Your task to perform on an android device: Open Google Chrome Image 0: 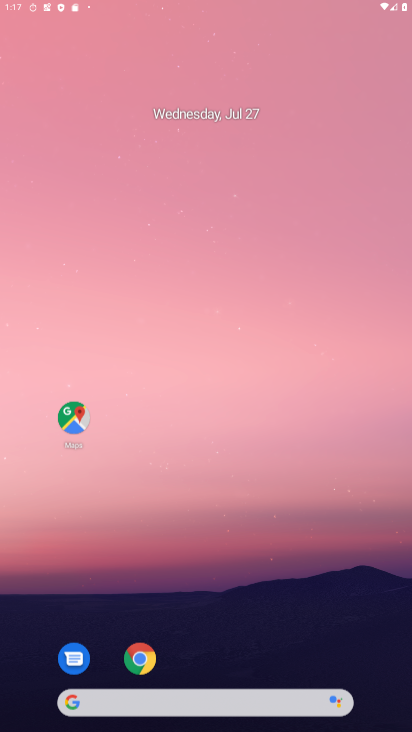
Step 0: press home button
Your task to perform on an android device: Open Google Chrome Image 1: 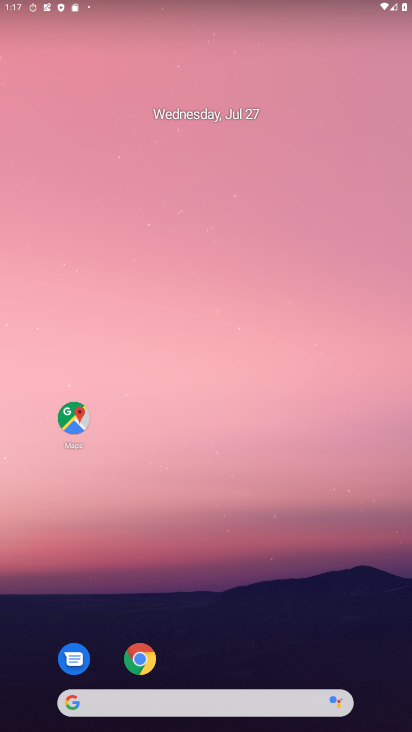
Step 1: click (134, 655)
Your task to perform on an android device: Open Google Chrome Image 2: 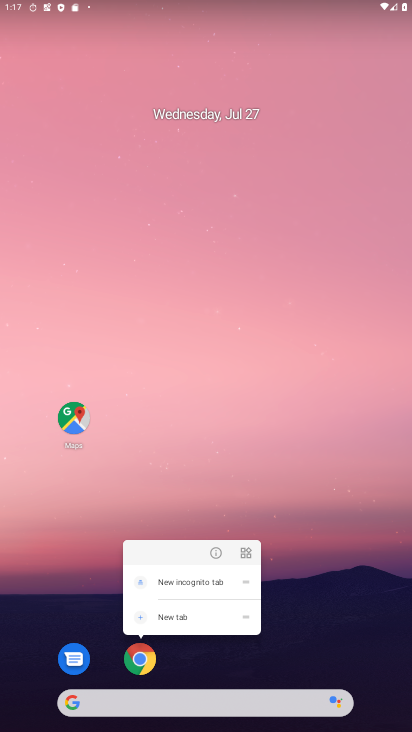
Step 2: click (294, 653)
Your task to perform on an android device: Open Google Chrome Image 3: 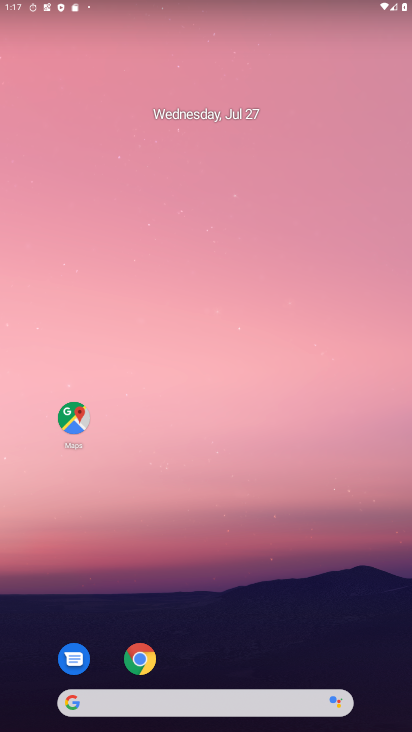
Step 3: drag from (290, 661) to (293, 50)
Your task to perform on an android device: Open Google Chrome Image 4: 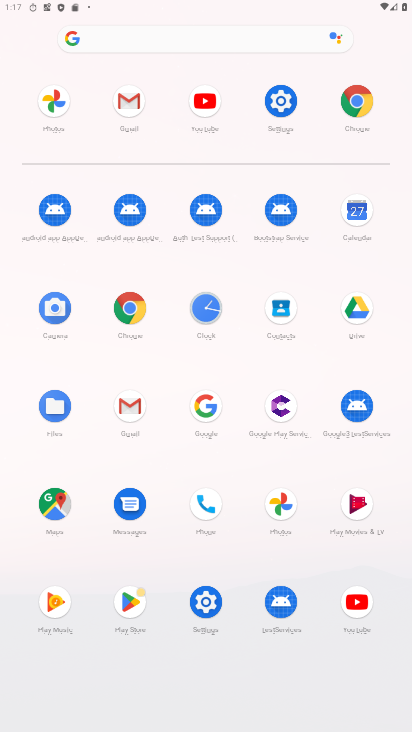
Step 4: click (351, 99)
Your task to perform on an android device: Open Google Chrome Image 5: 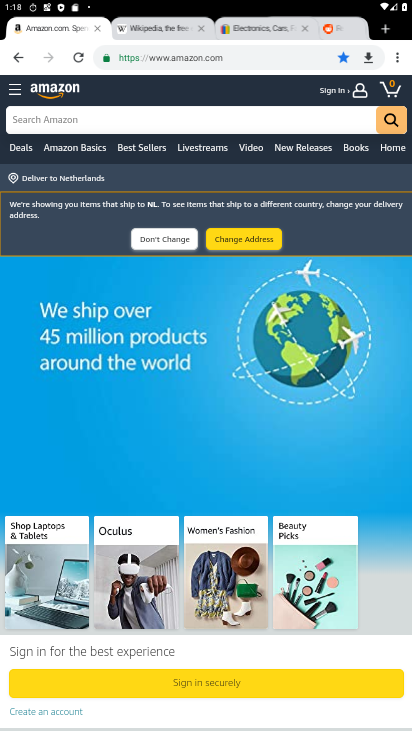
Step 5: task complete